Your task to perform on an android device: Go to network settings Image 0: 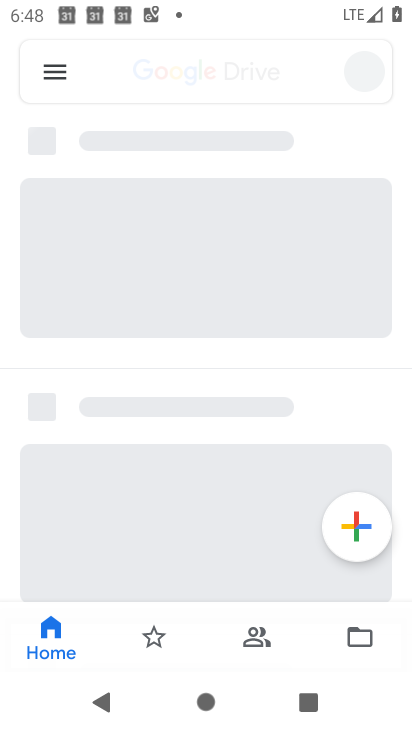
Step 0: drag from (388, 596) to (328, 217)
Your task to perform on an android device: Go to network settings Image 1: 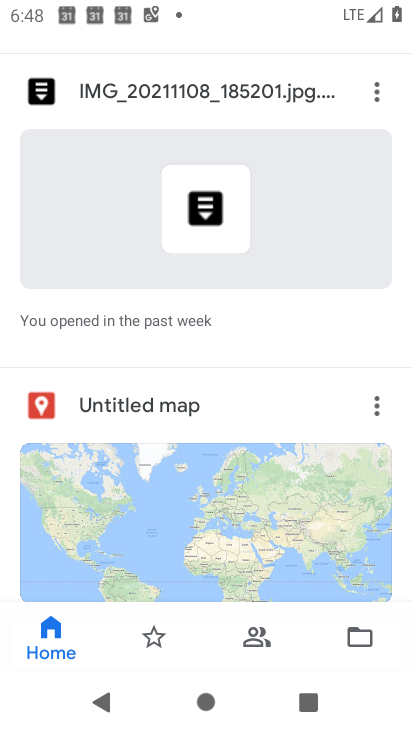
Step 1: press home button
Your task to perform on an android device: Go to network settings Image 2: 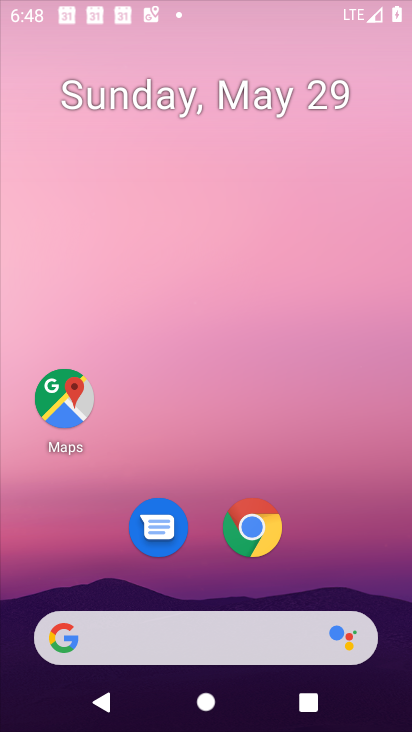
Step 2: drag from (186, 578) to (183, 31)
Your task to perform on an android device: Go to network settings Image 3: 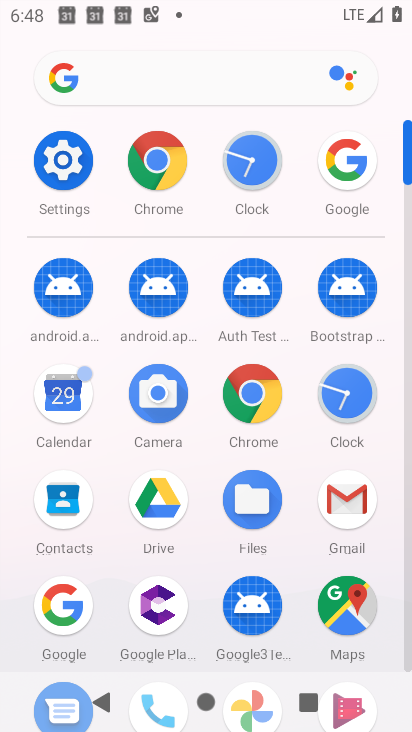
Step 3: click (61, 157)
Your task to perform on an android device: Go to network settings Image 4: 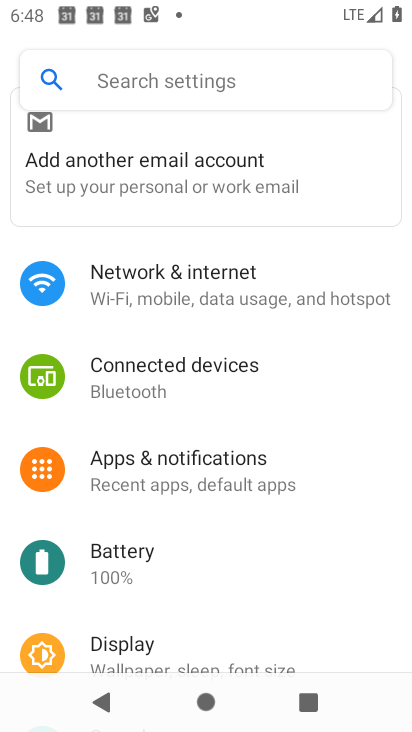
Step 4: click (164, 308)
Your task to perform on an android device: Go to network settings Image 5: 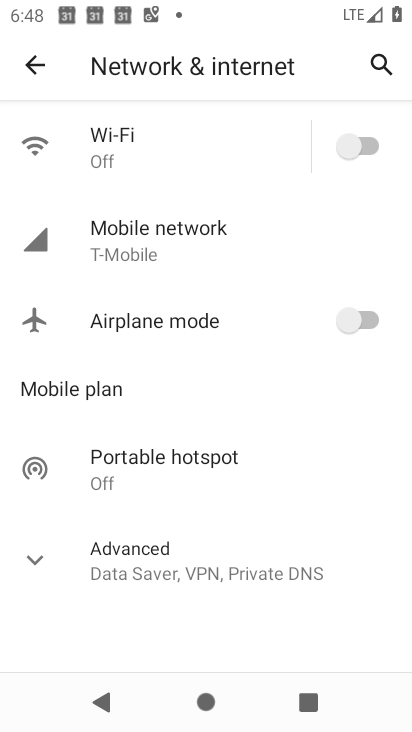
Step 5: task complete